Your task to perform on an android device: change keyboard looks Image 0: 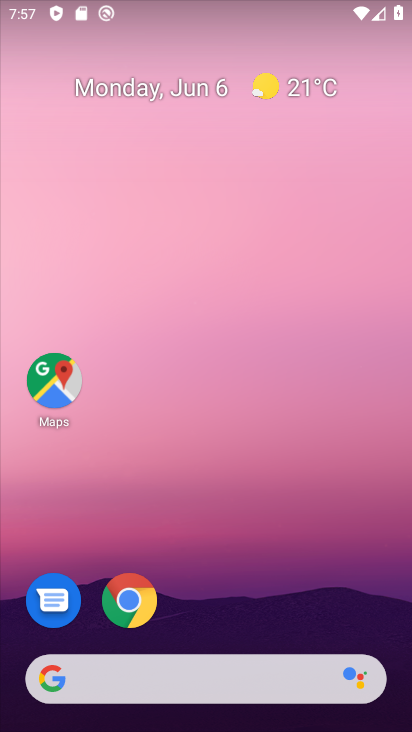
Step 0: drag from (227, 563) to (193, 9)
Your task to perform on an android device: change keyboard looks Image 1: 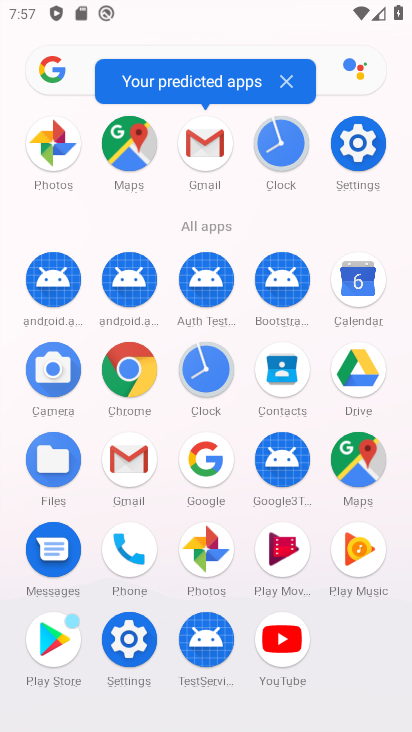
Step 1: drag from (1, 571) to (0, 298)
Your task to perform on an android device: change keyboard looks Image 2: 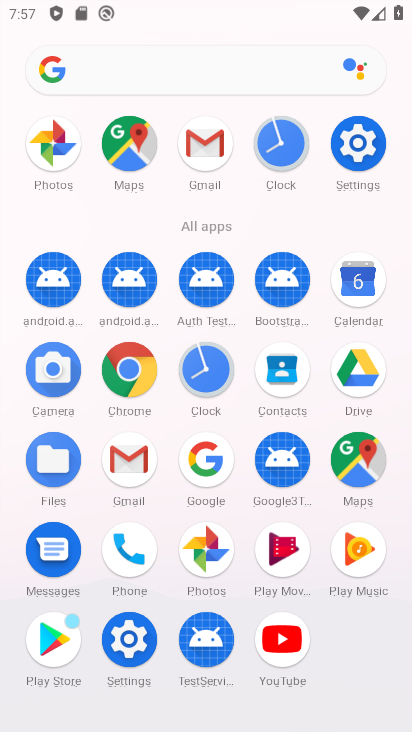
Step 2: click (129, 638)
Your task to perform on an android device: change keyboard looks Image 3: 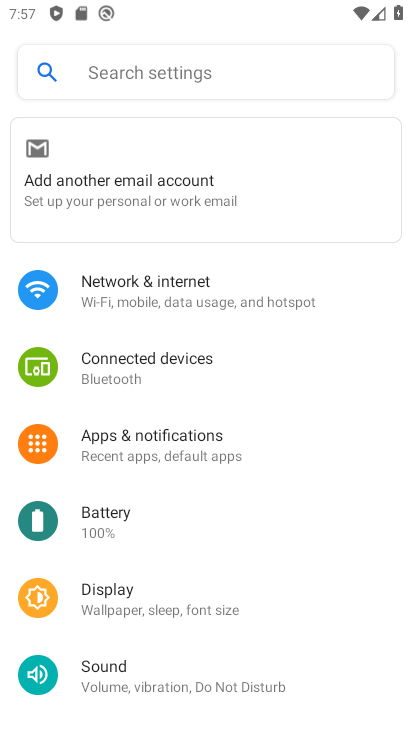
Step 3: drag from (270, 615) to (253, 218)
Your task to perform on an android device: change keyboard looks Image 4: 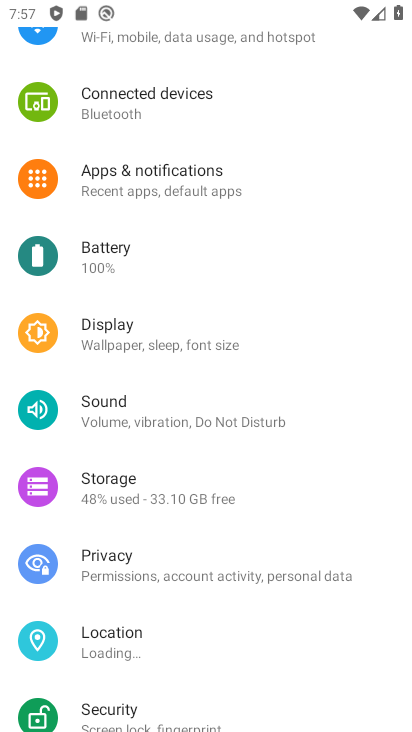
Step 4: drag from (274, 621) to (313, 151)
Your task to perform on an android device: change keyboard looks Image 5: 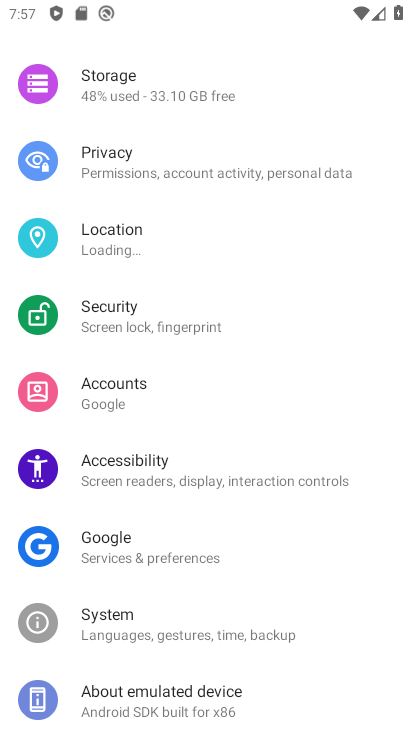
Step 5: drag from (238, 614) to (297, 222)
Your task to perform on an android device: change keyboard looks Image 6: 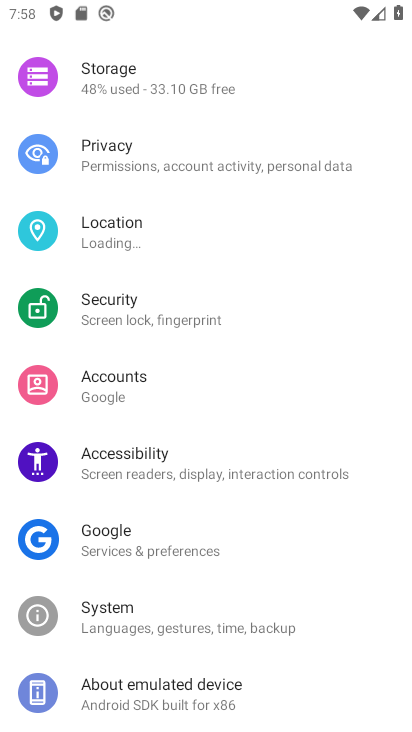
Step 6: click (171, 618)
Your task to perform on an android device: change keyboard looks Image 7: 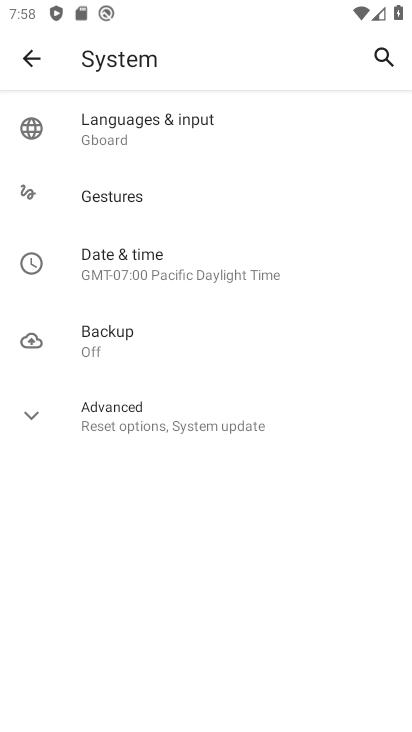
Step 7: click (35, 414)
Your task to perform on an android device: change keyboard looks Image 8: 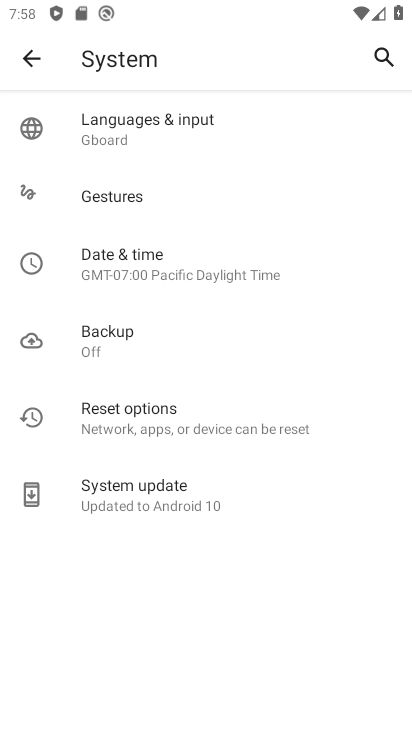
Step 8: click (177, 136)
Your task to perform on an android device: change keyboard looks Image 9: 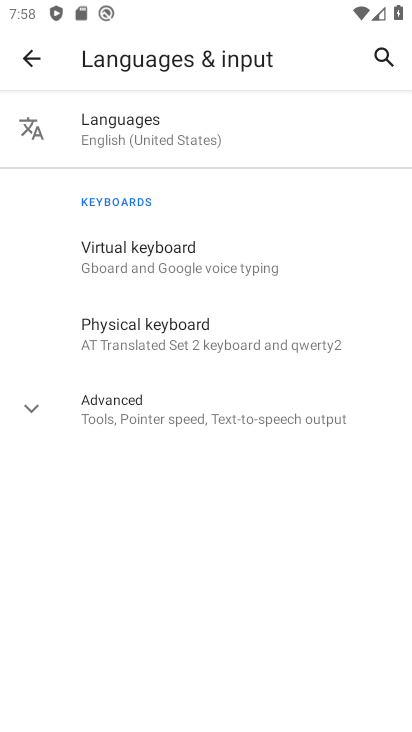
Step 9: click (36, 409)
Your task to perform on an android device: change keyboard looks Image 10: 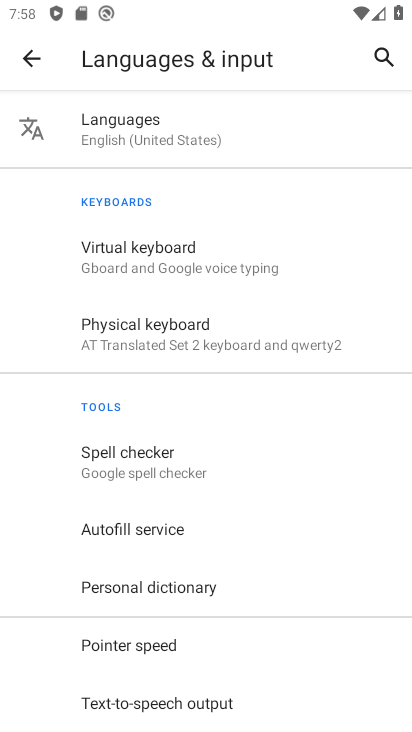
Step 10: click (223, 266)
Your task to perform on an android device: change keyboard looks Image 11: 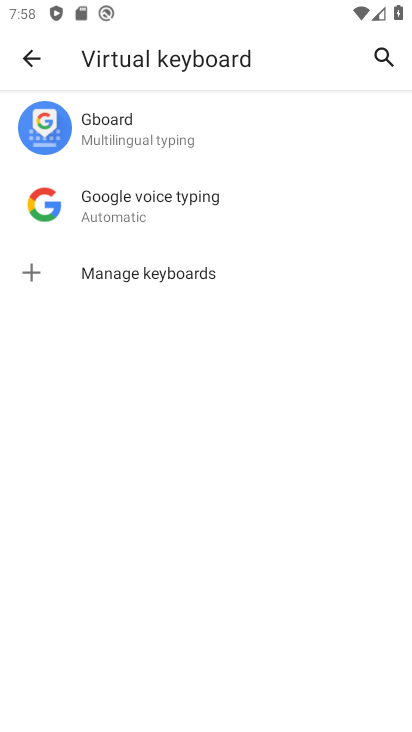
Step 11: click (185, 132)
Your task to perform on an android device: change keyboard looks Image 12: 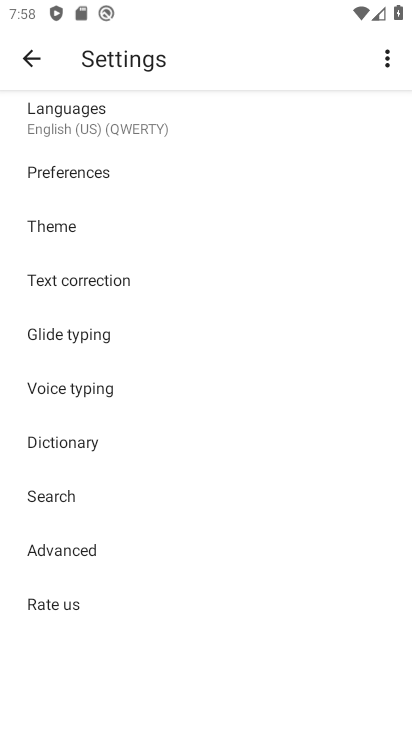
Step 12: click (130, 227)
Your task to perform on an android device: change keyboard looks Image 13: 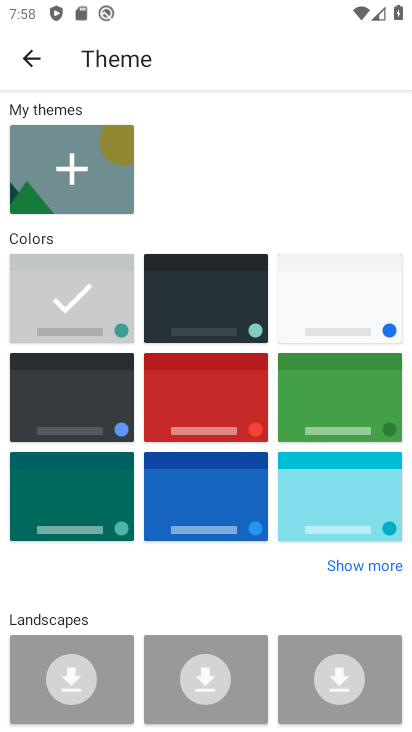
Step 13: click (200, 321)
Your task to perform on an android device: change keyboard looks Image 14: 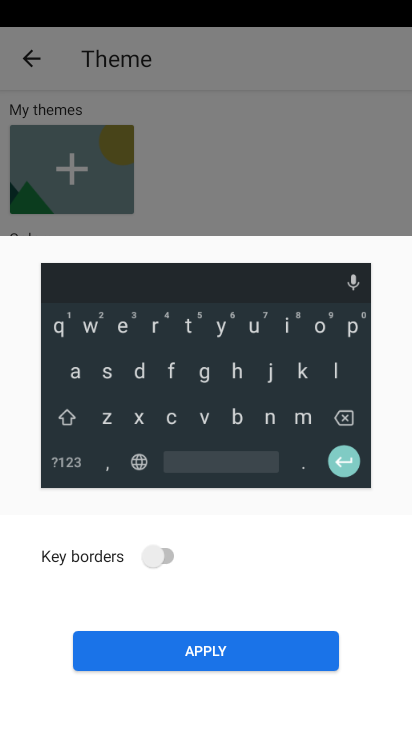
Step 14: click (232, 641)
Your task to perform on an android device: change keyboard looks Image 15: 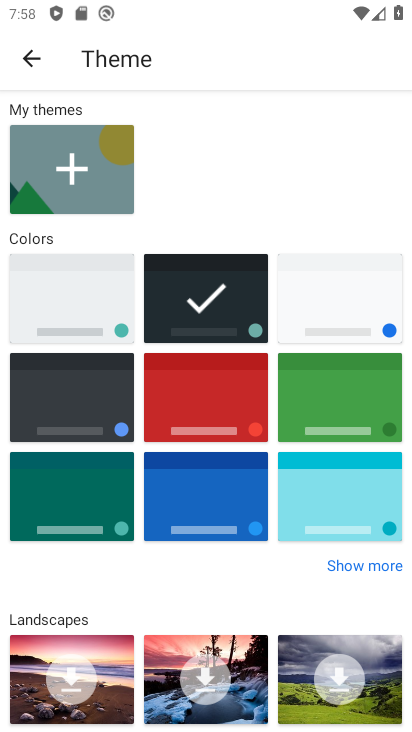
Step 15: task complete